Your task to perform on an android device: delete the emails in spam in the gmail app Image 0: 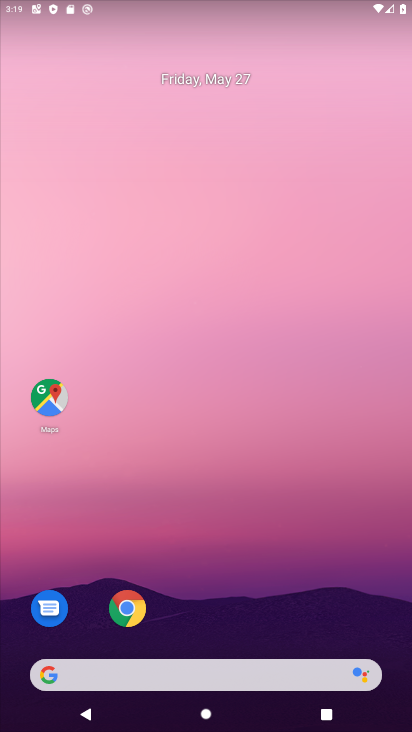
Step 0: drag from (157, 596) to (164, 292)
Your task to perform on an android device: delete the emails in spam in the gmail app Image 1: 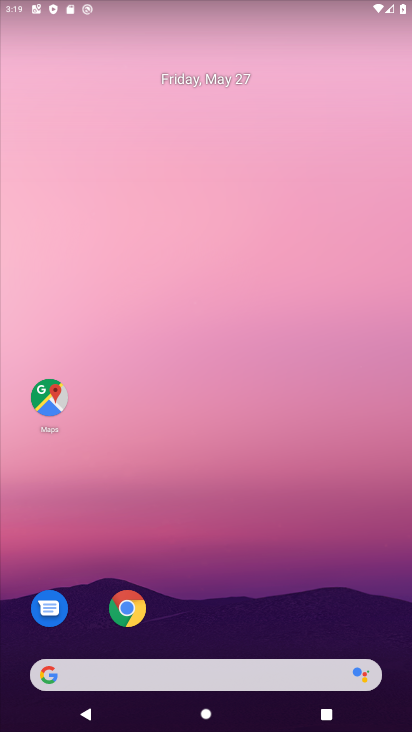
Step 1: drag from (238, 608) to (186, 143)
Your task to perform on an android device: delete the emails in spam in the gmail app Image 2: 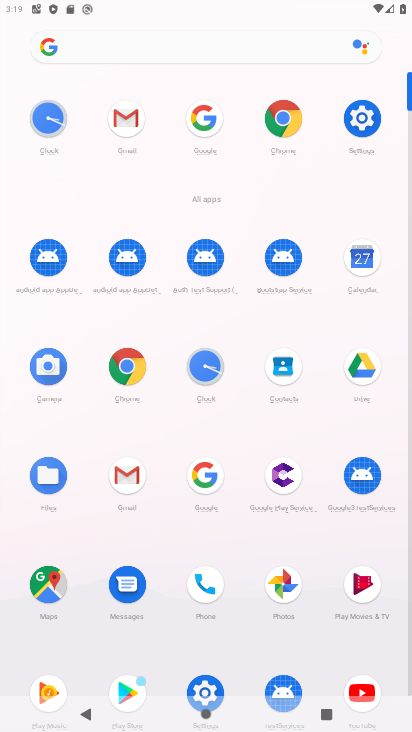
Step 2: click (121, 477)
Your task to perform on an android device: delete the emails in spam in the gmail app Image 3: 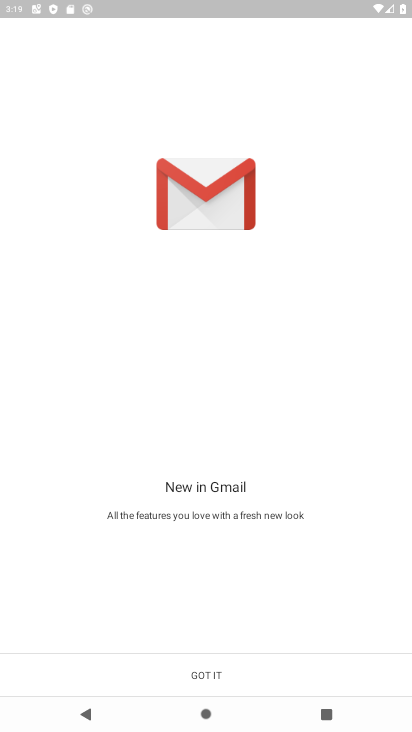
Step 3: click (205, 677)
Your task to perform on an android device: delete the emails in spam in the gmail app Image 4: 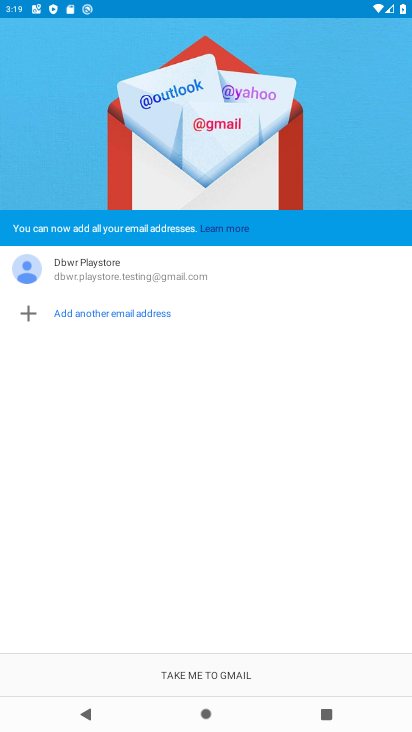
Step 4: click (163, 674)
Your task to perform on an android device: delete the emails in spam in the gmail app Image 5: 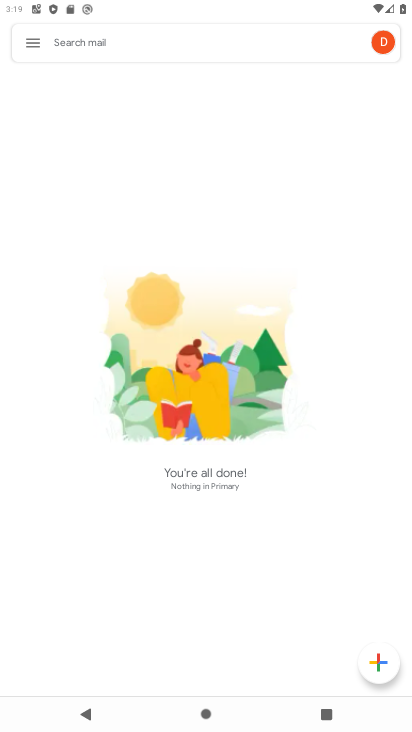
Step 5: click (31, 44)
Your task to perform on an android device: delete the emails in spam in the gmail app Image 6: 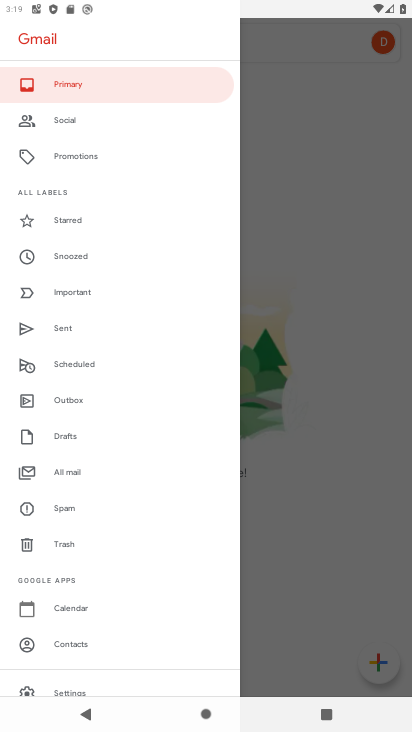
Step 6: click (69, 510)
Your task to perform on an android device: delete the emails in spam in the gmail app Image 7: 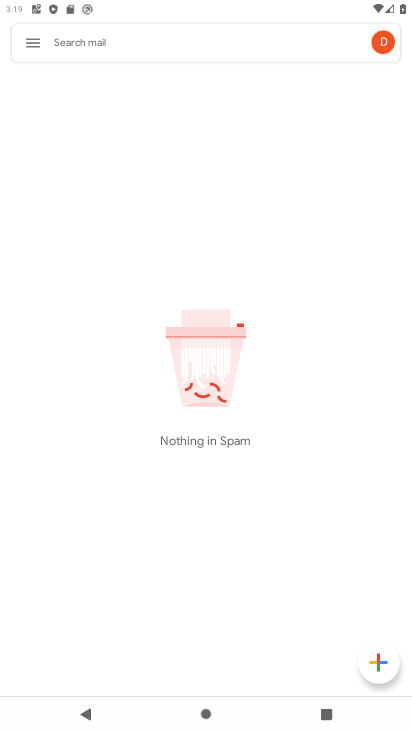
Step 7: task complete